Your task to perform on an android device: toggle pop-ups in chrome Image 0: 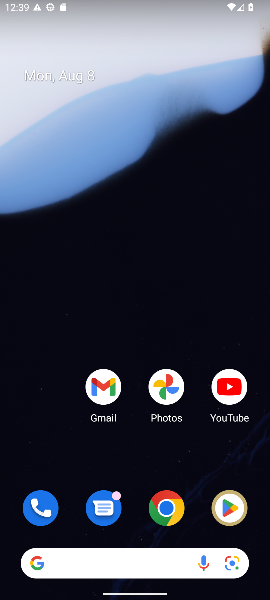
Step 0: click (165, 509)
Your task to perform on an android device: toggle pop-ups in chrome Image 1: 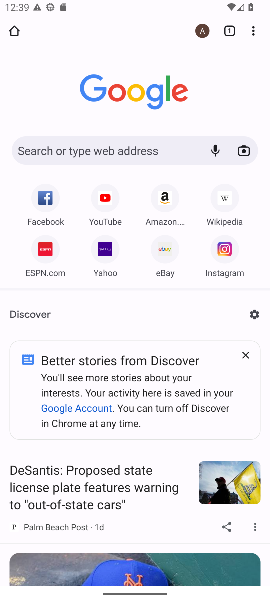
Step 1: click (257, 32)
Your task to perform on an android device: toggle pop-ups in chrome Image 2: 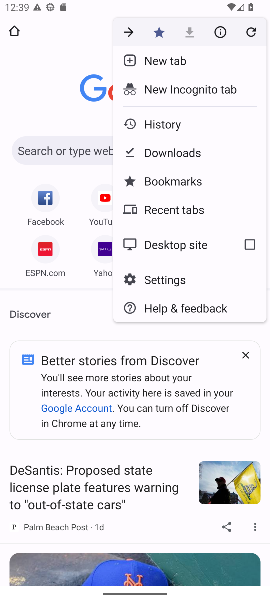
Step 2: click (169, 279)
Your task to perform on an android device: toggle pop-ups in chrome Image 3: 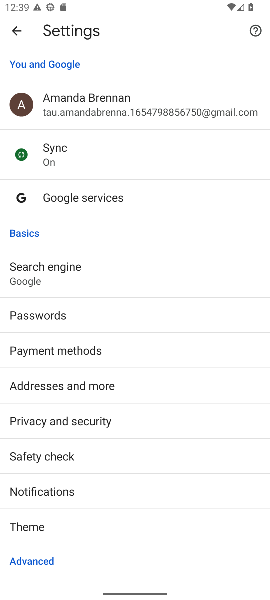
Step 3: drag from (35, 351) to (32, 209)
Your task to perform on an android device: toggle pop-ups in chrome Image 4: 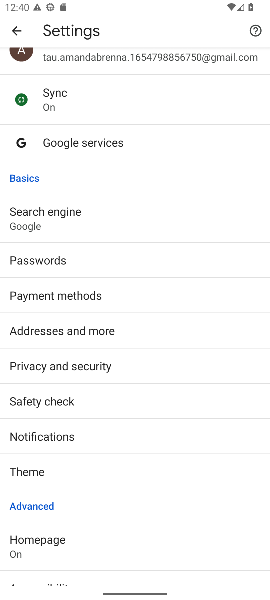
Step 4: drag from (78, 260) to (103, 129)
Your task to perform on an android device: toggle pop-ups in chrome Image 5: 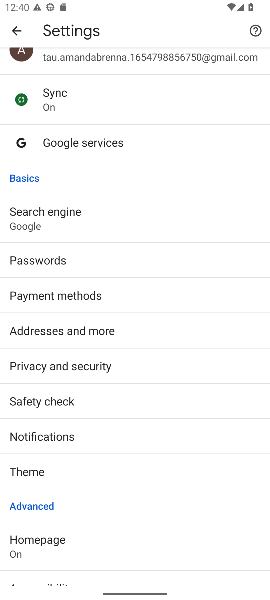
Step 5: drag from (84, 329) to (84, 178)
Your task to perform on an android device: toggle pop-ups in chrome Image 6: 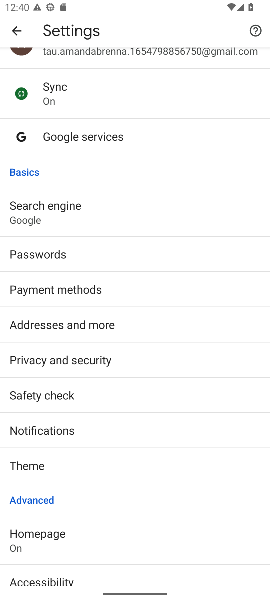
Step 6: drag from (89, 470) to (89, 338)
Your task to perform on an android device: toggle pop-ups in chrome Image 7: 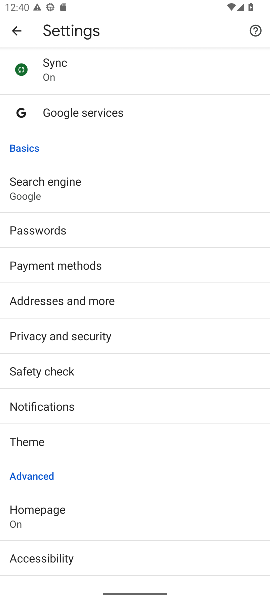
Step 7: drag from (61, 507) to (118, 199)
Your task to perform on an android device: toggle pop-ups in chrome Image 8: 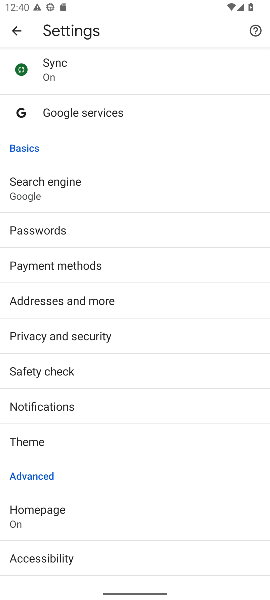
Step 8: drag from (93, 443) to (114, 88)
Your task to perform on an android device: toggle pop-ups in chrome Image 9: 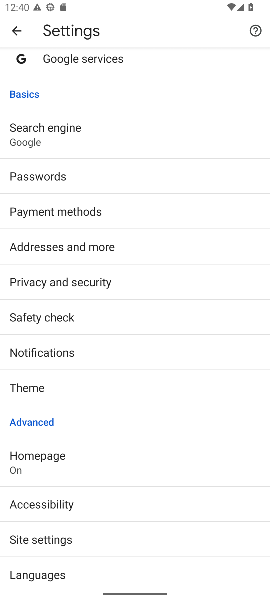
Step 9: click (50, 542)
Your task to perform on an android device: toggle pop-ups in chrome Image 10: 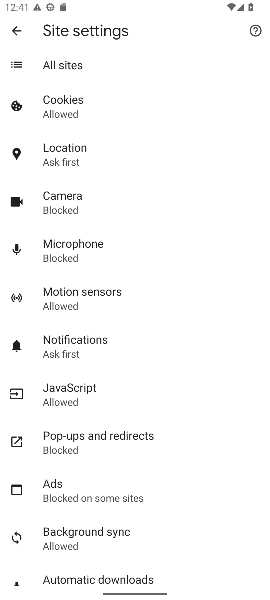
Step 10: click (69, 445)
Your task to perform on an android device: toggle pop-ups in chrome Image 11: 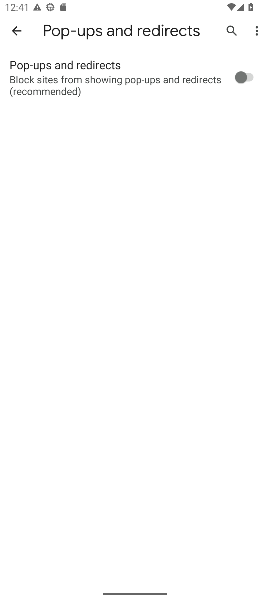
Step 11: click (252, 78)
Your task to perform on an android device: toggle pop-ups in chrome Image 12: 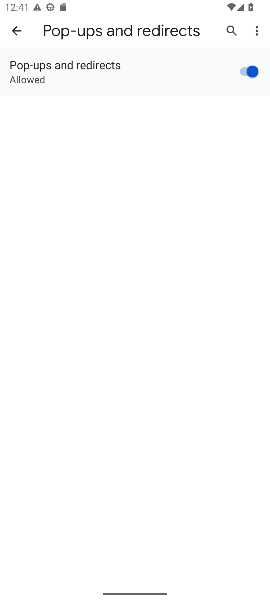
Step 12: task complete